Your task to perform on an android device: turn on sleep mode Image 0: 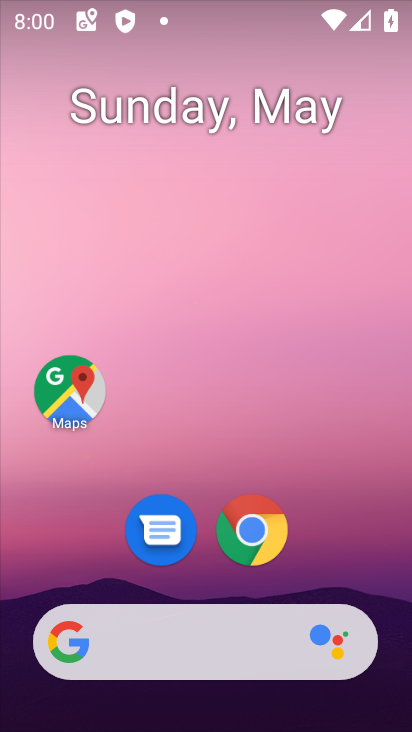
Step 0: drag from (358, 587) to (342, 6)
Your task to perform on an android device: turn on sleep mode Image 1: 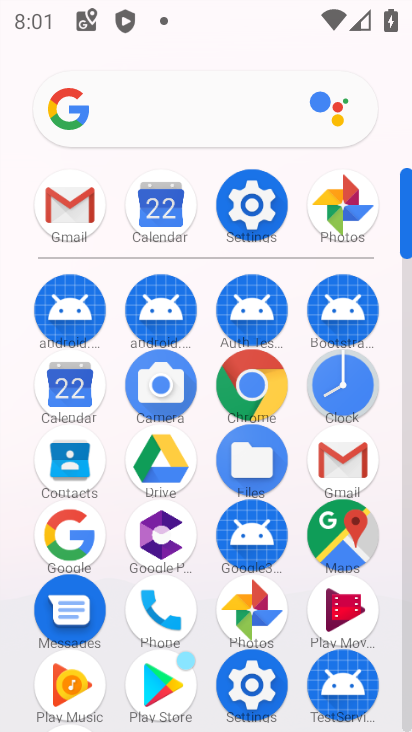
Step 1: click (254, 214)
Your task to perform on an android device: turn on sleep mode Image 2: 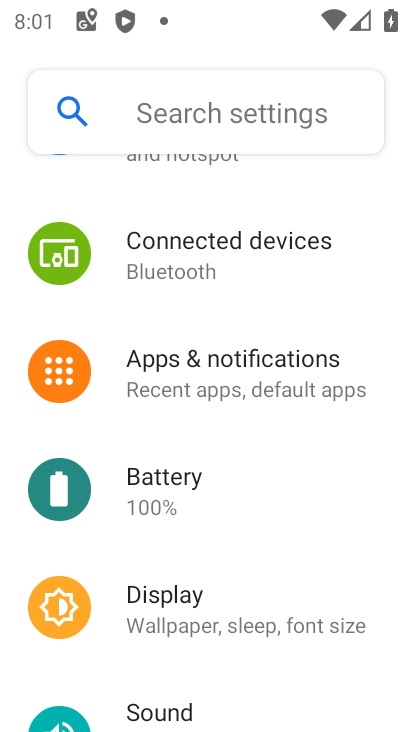
Step 2: click (171, 608)
Your task to perform on an android device: turn on sleep mode Image 3: 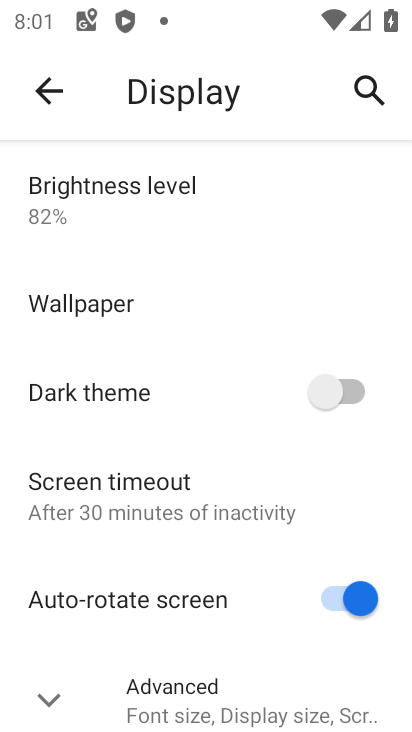
Step 3: drag from (186, 633) to (209, 229)
Your task to perform on an android device: turn on sleep mode Image 4: 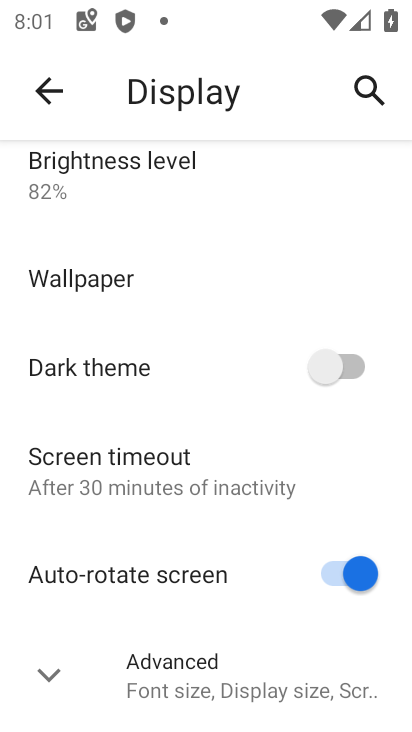
Step 4: click (55, 679)
Your task to perform on an android device: turn on sleep mode Image 5: 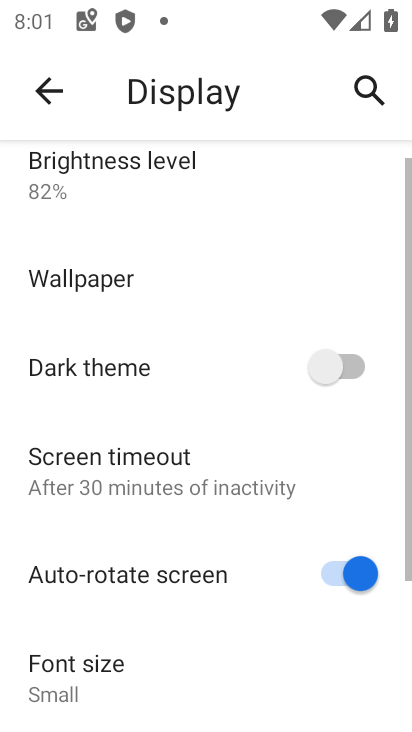
Step 5: task complete